Your task to perform on an android device: Turn on the flashlight Image 0: 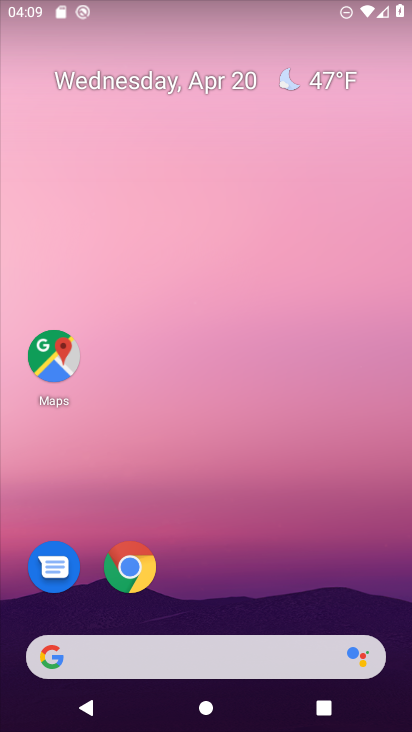
Step 0: drag from (200, 15) to (176, 489)
Your task to perform on an android device: Turn on the flashlight Image 1: 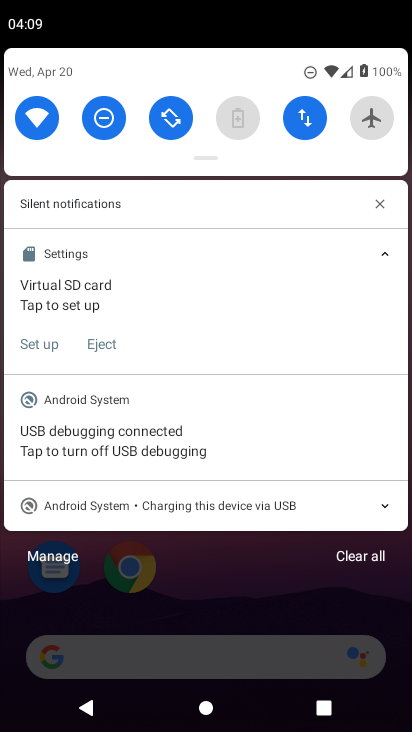
Step 1: drag from (208, 74) to (208, 496)
Your task to perform on an android device: Turn on the flashlight Image 2: 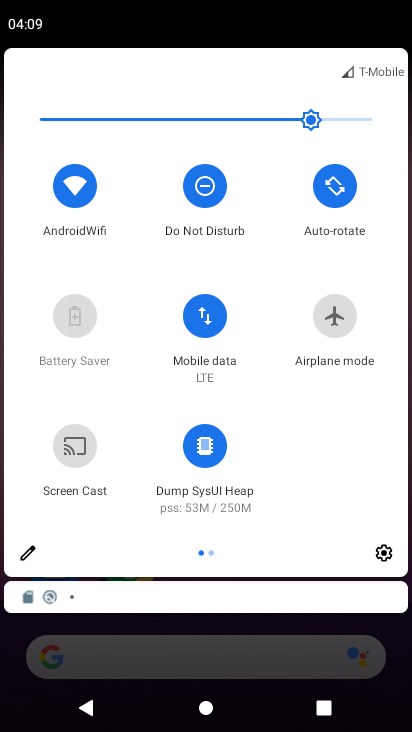
Step 2: click (388, 561)
Your task to perform on an android device: Turn on the flashlight Image 3: 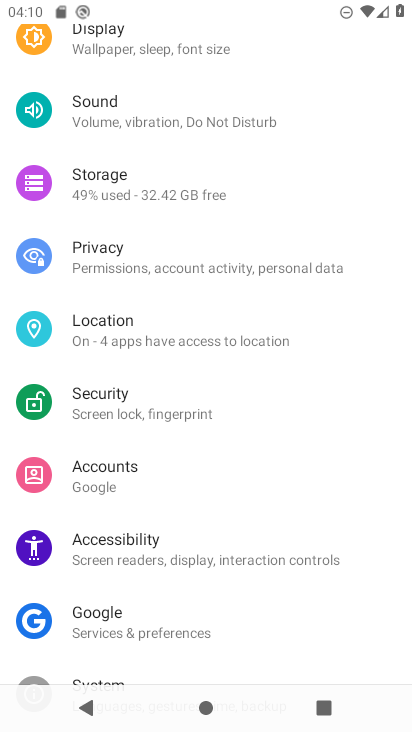
Step 3: task complete